Your task to perform on an android device: open app "Google Keep" Image 0: 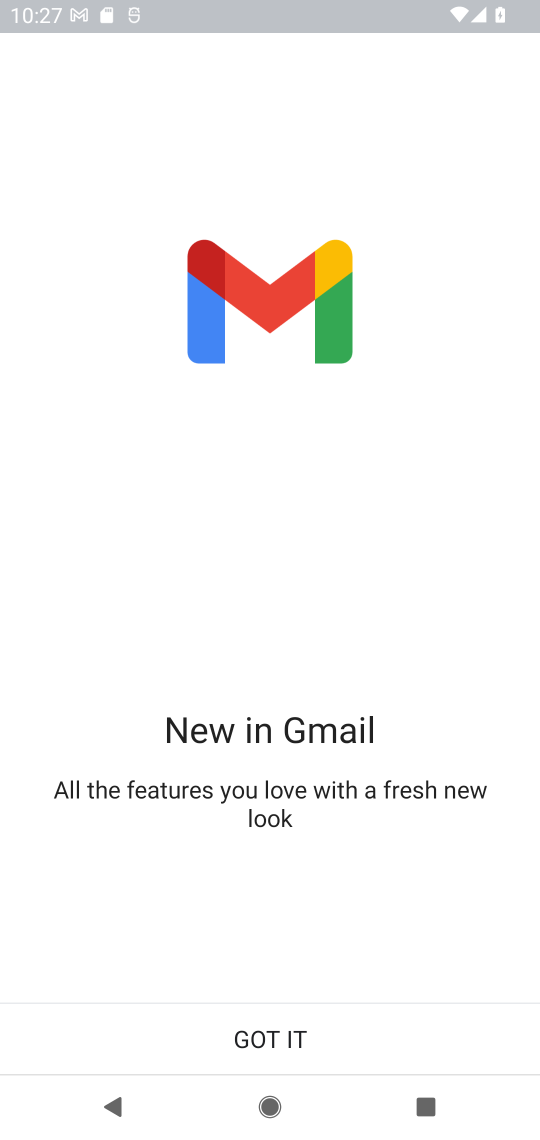
Step 0: press home button
Your task to perform on an android device: open app "Google Keep" Image 1: 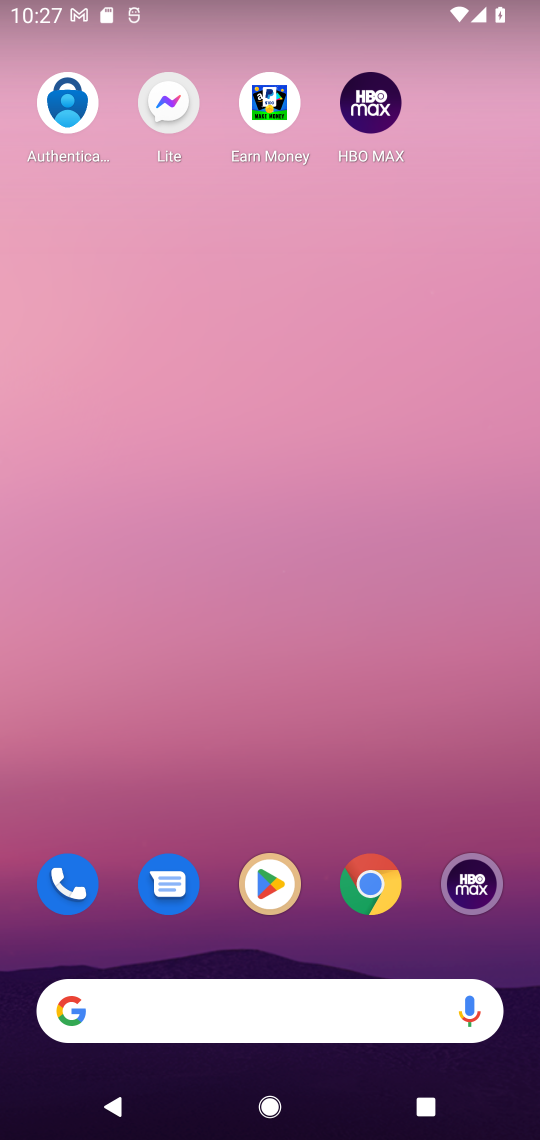
Step 1: drag from (163, 1009) to (325, 131)
Your task to perform on an android device: open app "Google Keep" Image 2: 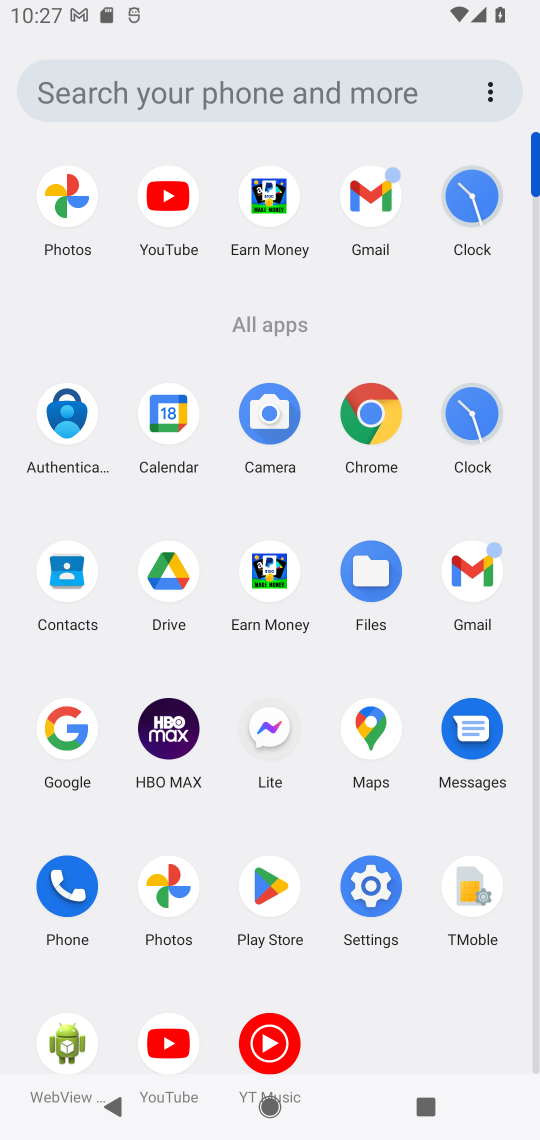
Step 2: click (274, 888)
Your task to perform on an android device: open app "Google Keep" Image 3: 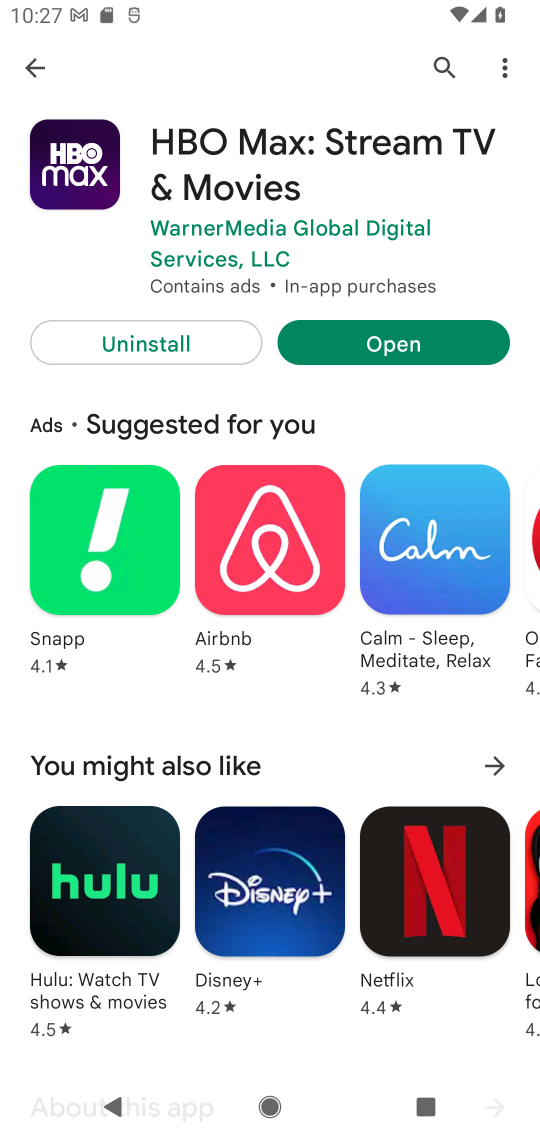
Step 3: press back button
Your task to perform on an android device: open app "Google Keep" Image 4: 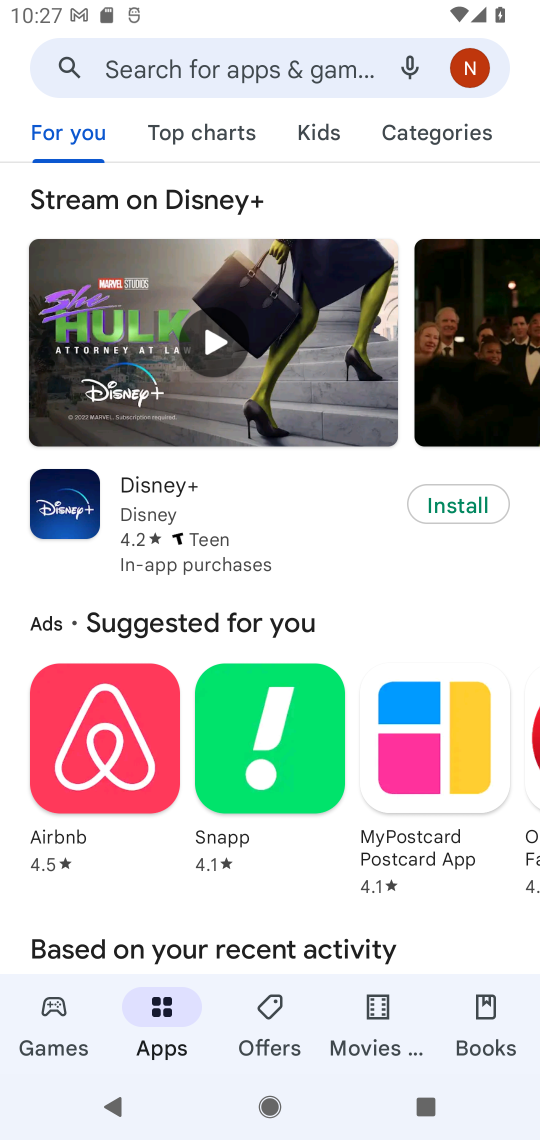
Step 4: click (314, 64)
Your task to perform on an android device: open app "Google Keep" Image 5: 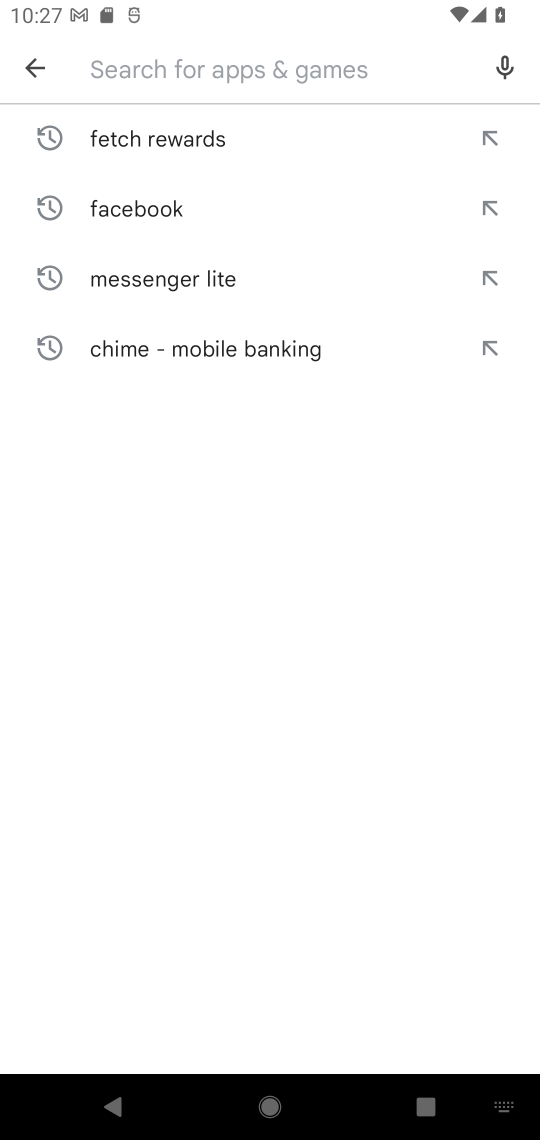
Step 5: type "Google Keep"
Your task to perform on an android device: open app "Google Keep" Image 6: 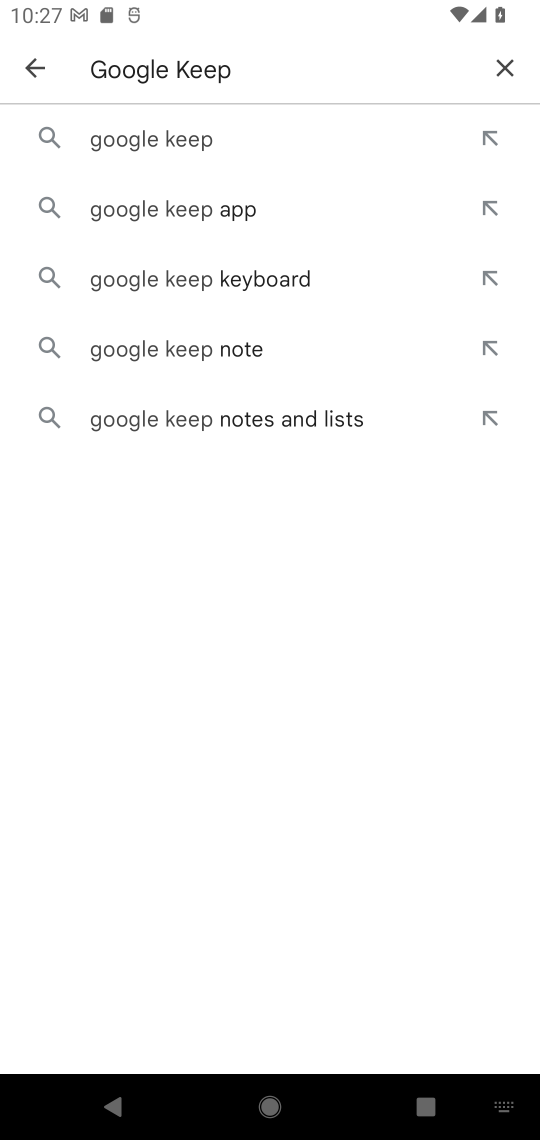
Step 6: click (142, 135)
Your task to perform on an android device: open app "Google Keep" Image 7: 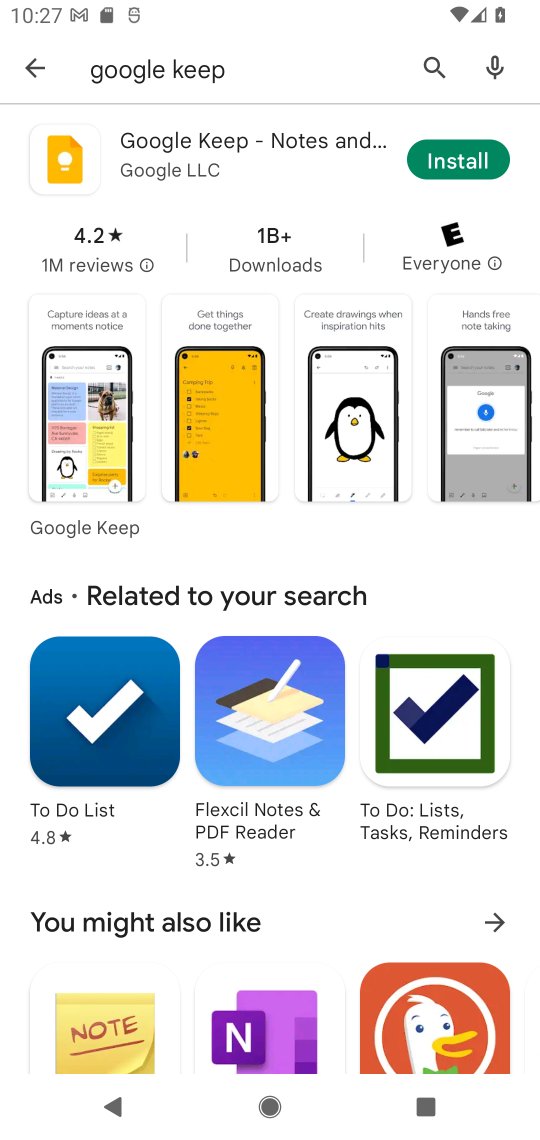
Step 7: task complete